Your task to perform on an android device: toggle notifications settings in the gmail app Image 0: 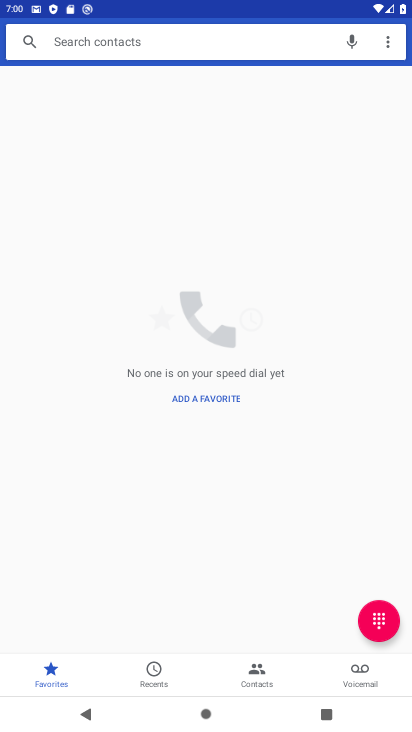
Step 0: press home button
Your task to perform on an android device: toggle notifications settings in the gmail app Image 1: 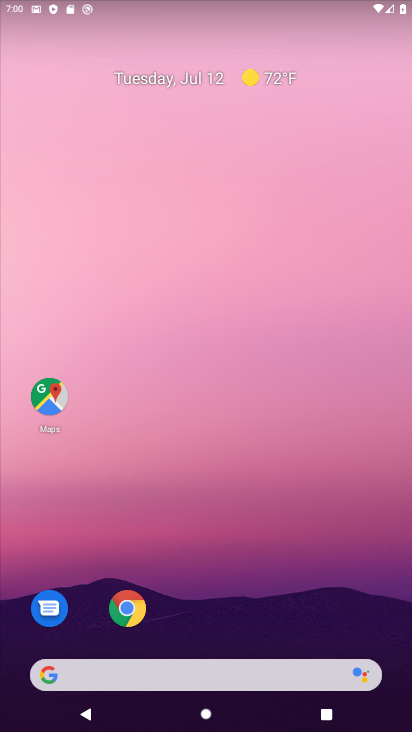
Step 1: drag from (225, 543) to (177, 146)
Your task to perform on an android device: toggle notifications settings in the gmail app Image 2: 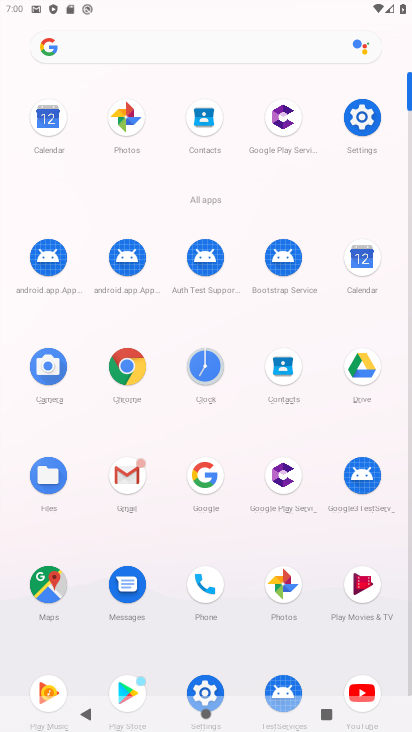
Step 2: click (126, 480)
Your task to perform on an android device: toggle notifications settings in the gmail app Image 3: 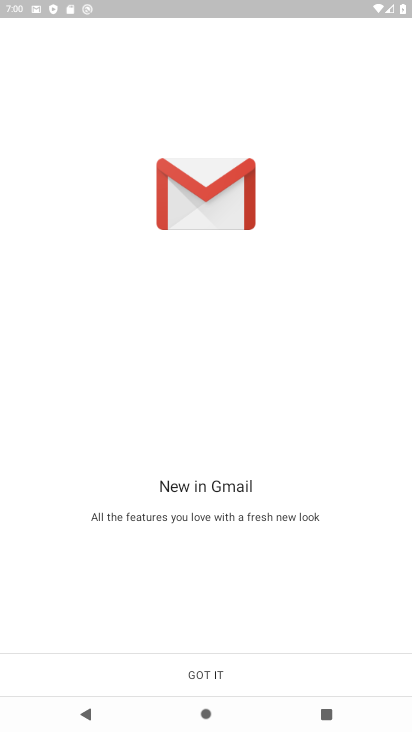
Step 3: click (205, 669)
Your task to perform on an android device: toggle notifications settings in the gmail app Image 4: 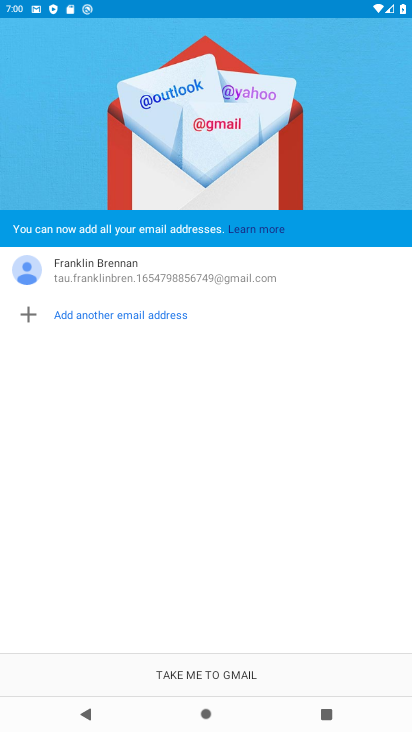
Step 4: click (205, 669)
Your task to perform on an android device: toggle notifications settings in the gmail app Image 5: 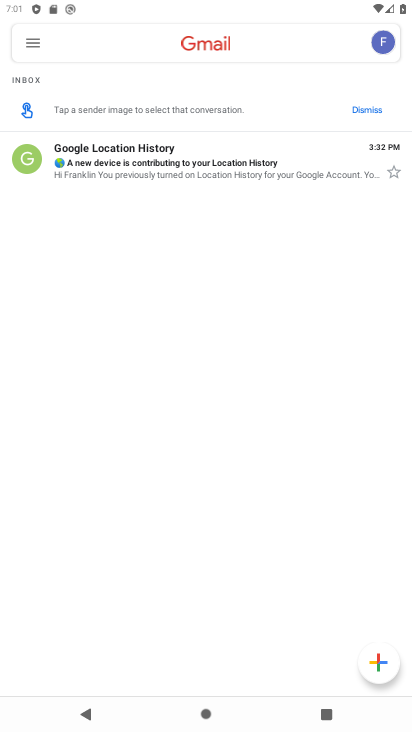
Step 5: click (34, 39)
Your task to perform on an android device: toggle notifications settings in the gmail app Image 6: 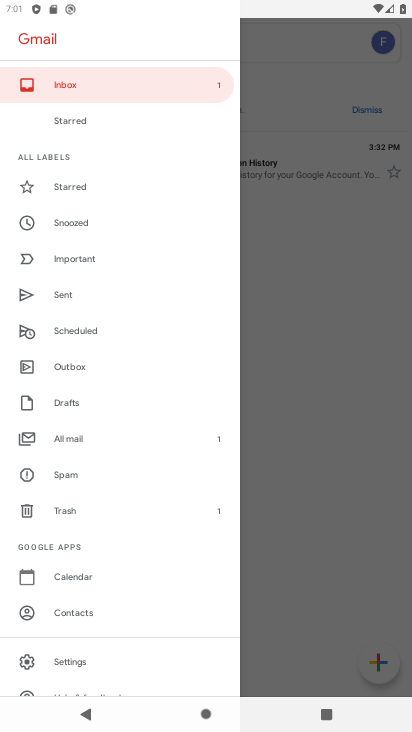
Step 6: click (63, 664)
Your task to perform on an android device: toggle notifications settings in the gmail app Image 7: 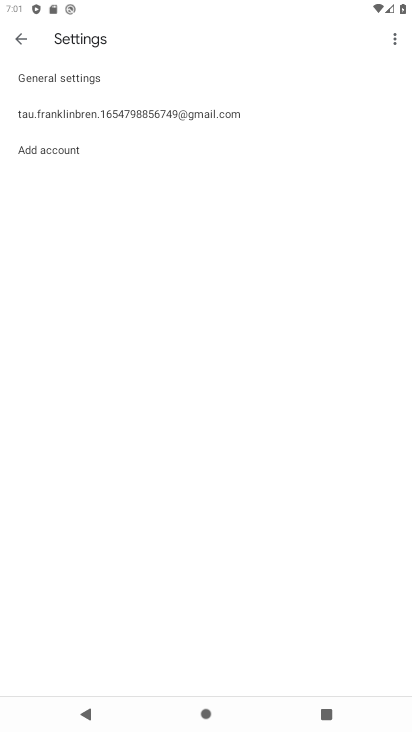
Step 7: click (62, 76)
Your task to perform on an android device: toggle notifications settings in the gmail app Image 8: 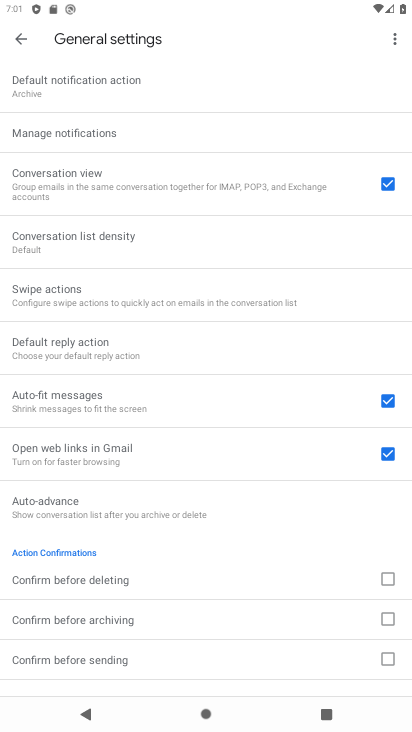
Step 8: click (62, 129)
Your task to perform on an android device: toggle notifications settings in the gmail app Image 9: 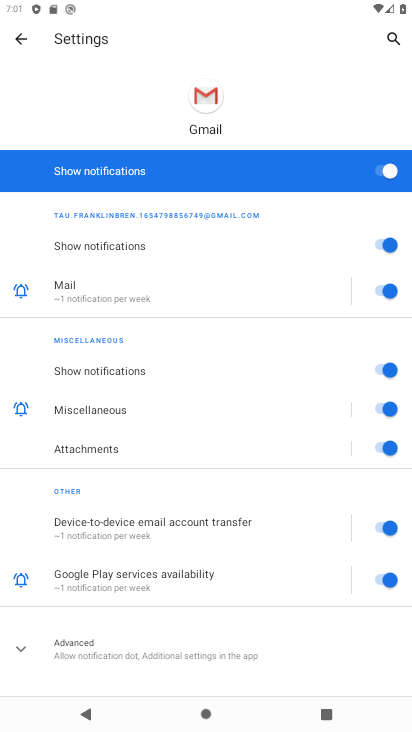
Step 9: click (389, 178)
Your task to perform on an android device: toggle notifications settings in the gmail app Image 10: 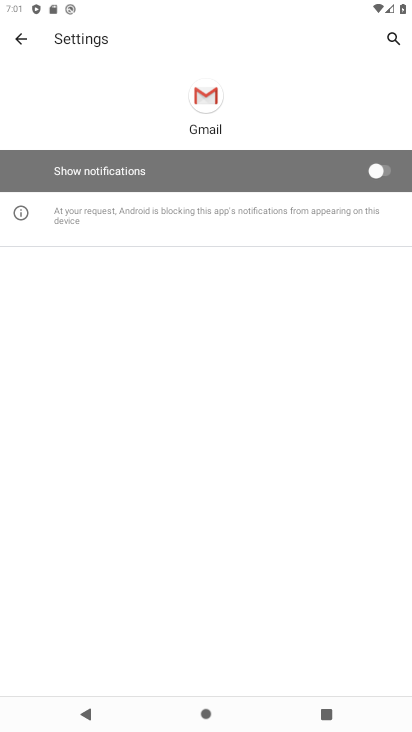
Step 10: task complete